Your task to perform on an android device: Open maps Image 0: 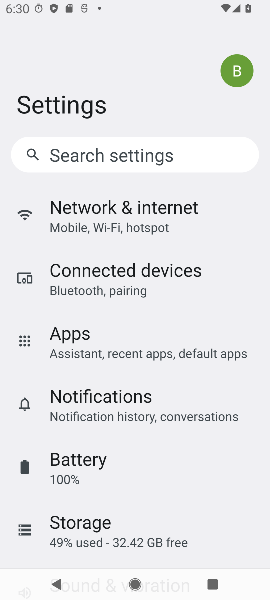
Step 0: press home button
Your task to perform on an android device: Open maps Image 1: 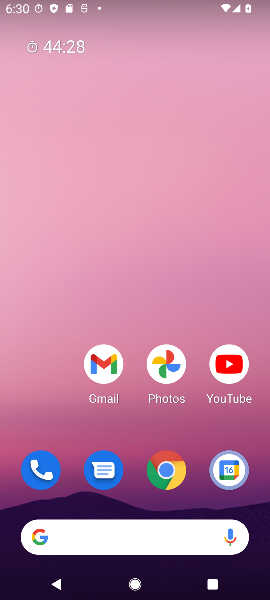
Step 1: drag from (139, 438) to (147, 2)
Your task to perform on an android device: Open maps Image 2: 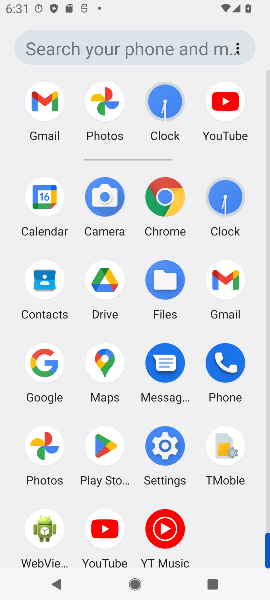
Step 2: click (103, 358)
Your task to perform on an android device: Open maps Image 3: 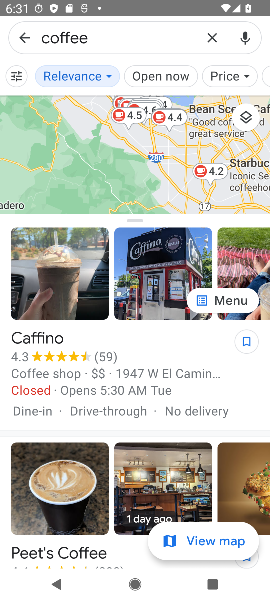
Step 3: click (210, 34)
Your task to perform on an android device: Open maps Image 4: 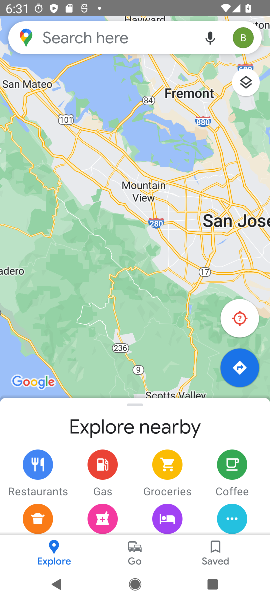
Step 4: task complete